Your task to perform on an android device: Go to notification settings Image 0: 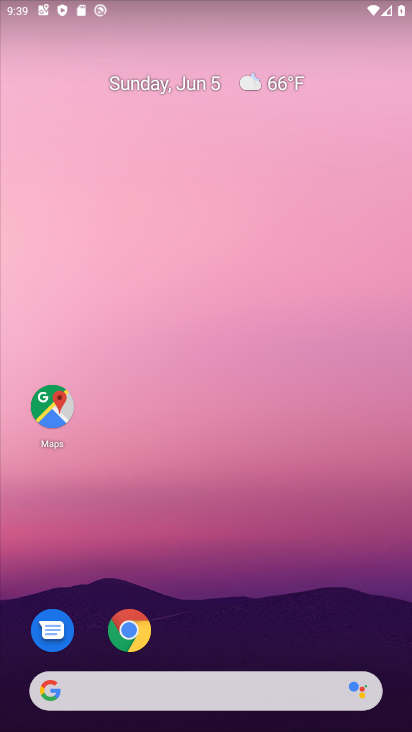
Step 0: drag from (248, 729) to (247, 35)
Your task to perform on an android device: Go to notification settings Image 1: 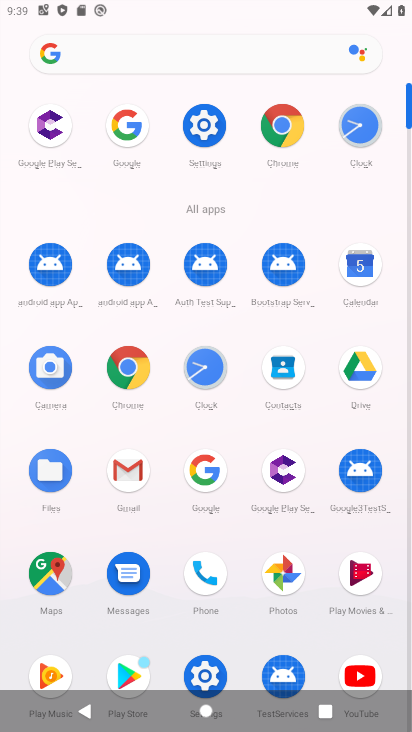
Step 1: click (196, 129)
Your task to perform on an android device: Go to notification settings Image 2: 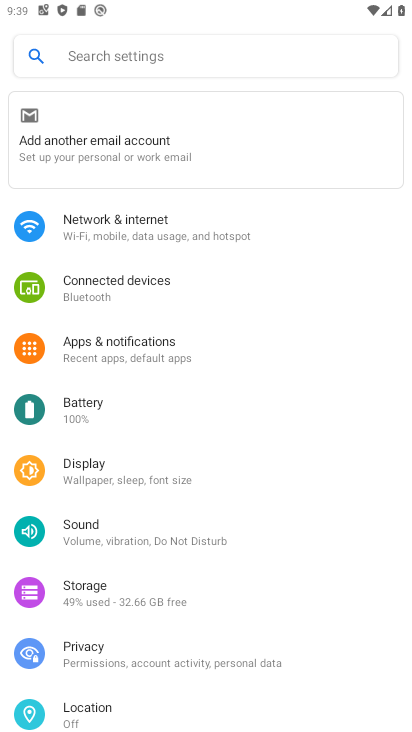
Step 2: click (122, 344)
Your task to perform on an android device: Go to notification settings Image 3: 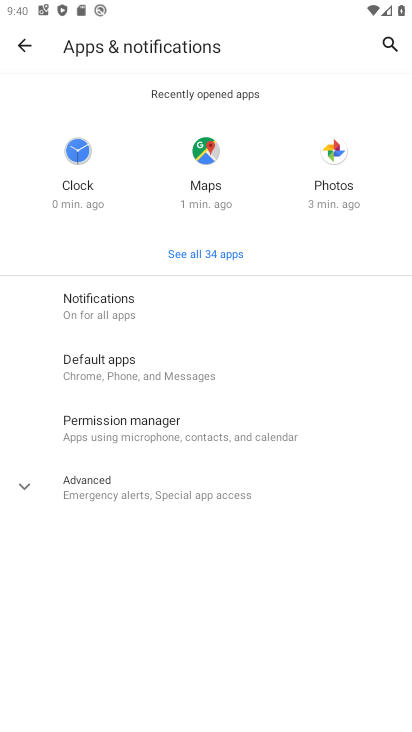
Step 3: task complete